Your task to perform on an android device: open app "DoorDash - Food Delivery" Image 0: 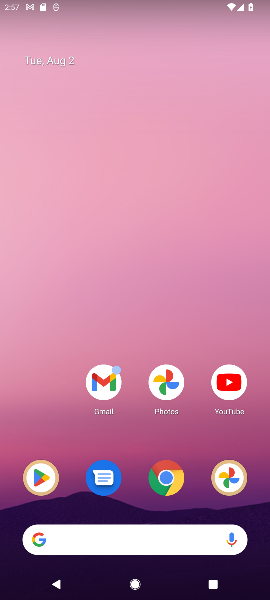
Step 0: drag from (144, 520) to (144, 65)
Your task to perform on an android device: open app "DoorDash - Food Delivery" Image 1: 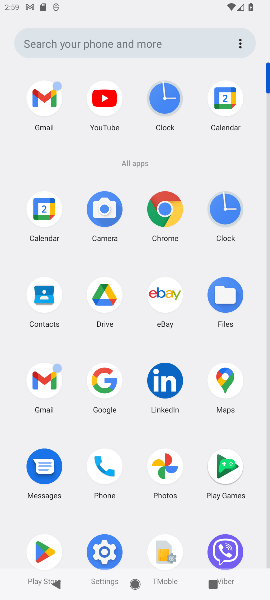
Step 1: click (36, 553)
Your task to perform on an android device: open app "DoorDash - Food Delivery" Image 2: 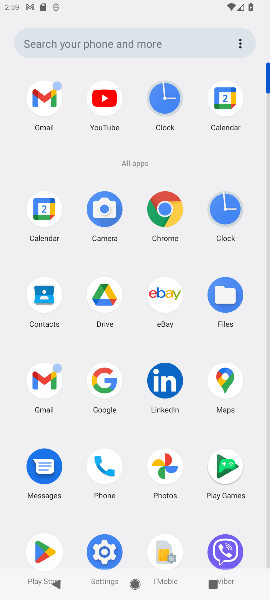
Step 2: click (38, 555)
Your task to perform on an android device: open app "DoorDash - Food Delivery" Image 3: 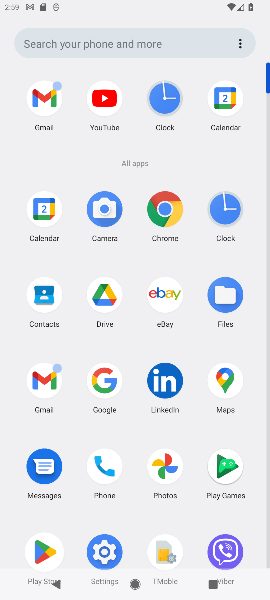
Step 3: click (38, 555)
Your task to perform on an android device: open app "DoorDash - Food Delivery" Image 4: 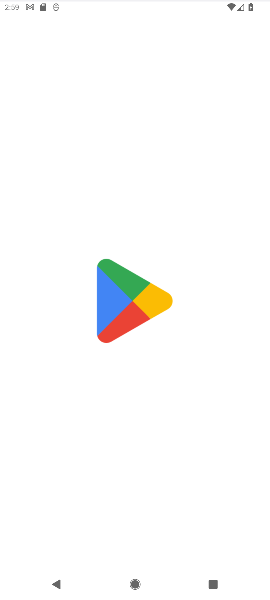
Step 4: click (40, 557)
Your task to perform on an android device: open app "DoorDash - Food Delivery" Image 5: 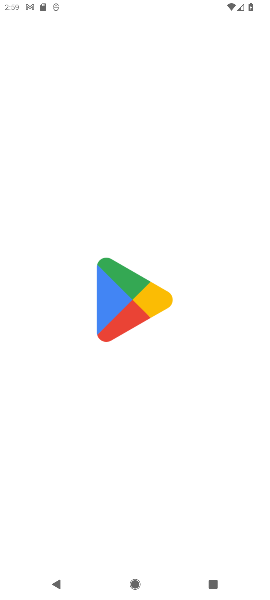
Step 5: click (40, 557)
Your task to perform on an android device: open app "DoorDash - Food Delivery" Image 6: 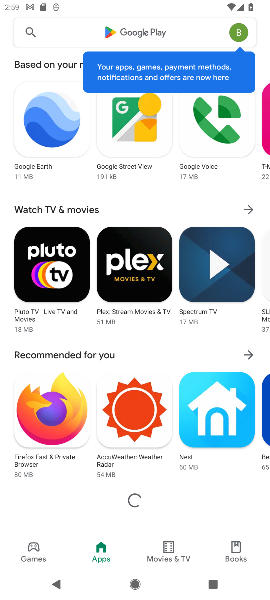
Step 6: click (63, 21)
Your task to perform on an android device: open app "DoorDash - Food Delivery" Image 7: 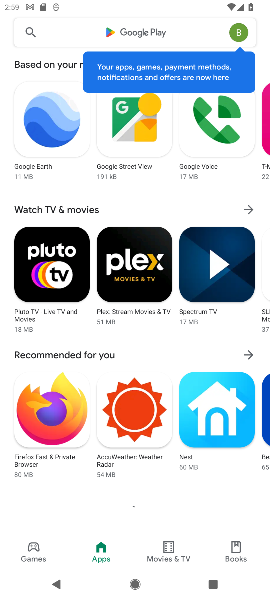
Step 7: click (78, 27)
Your task to perform on an android device: open app "DoorDash - Food Delivery" Image 8: 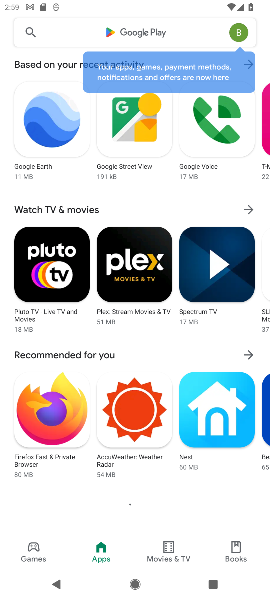
Step 8: click (85, 32)
Your task to perform on an android device: open app "DoorDash - Food Delivery" Image 9: 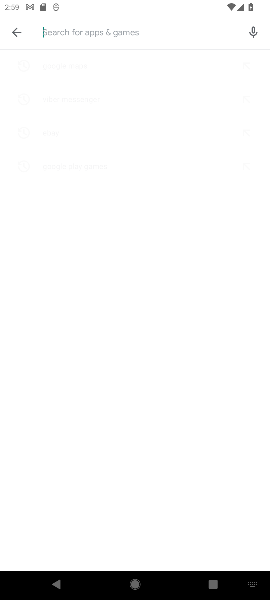
Step 9: click (86, 33)
Your task to perform on an android device: open app "DoorDash - Food Delivery" Image 10: 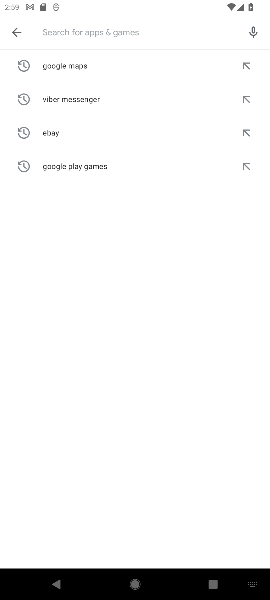
Step 10: click (86, 33)
Your task to perform on an android device: open app "DoorDash - Food Delivery" Image 11: 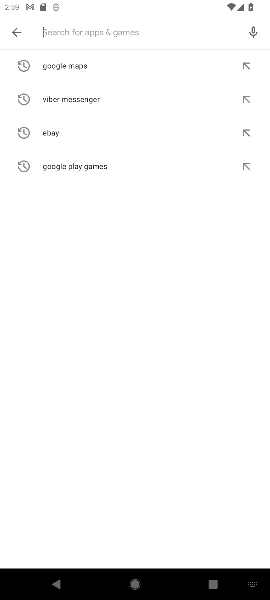
Step 11: type "doordash"
Your task to perform on an android device: open app "DoorDash - Food Delivery" Image 12: 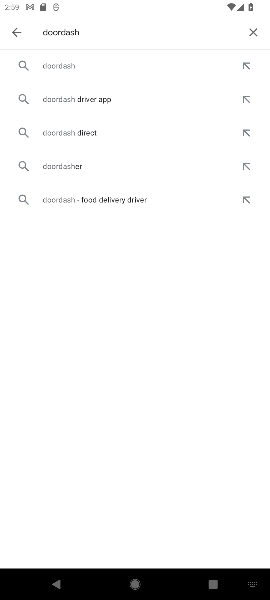
Step 12: click (67, 71)
Your task to perform on an android device: open app "DoorDash - Food Delivery" Image 13: 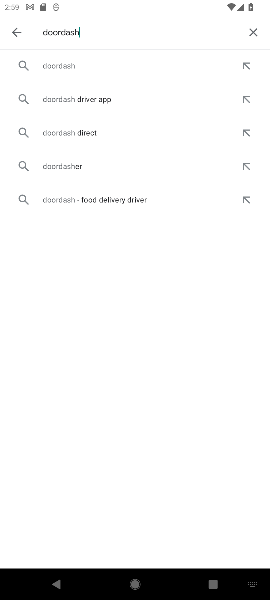
Step 13: click (67, 71)
Your task to perform on an android device: open app "DoorDash - Food Delivery" Image 14: 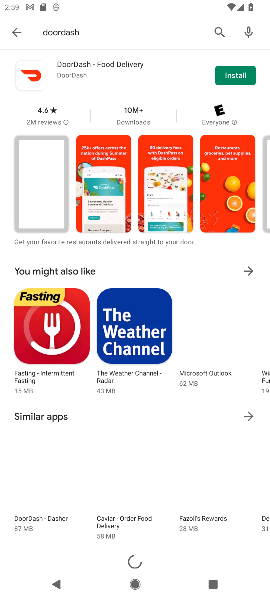
Step 14: click (67, 71)
Your task to perform on an android device: open app "DoorDash - Food Delivery" Image 15: 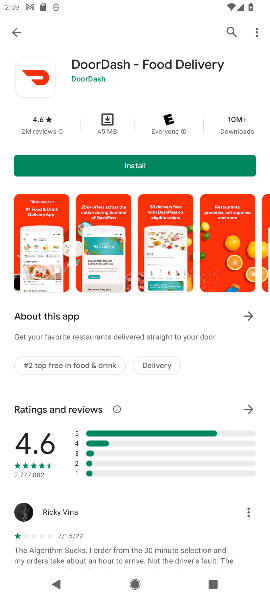
Step 15: click (136, 168)
Your task to perform on an android device: open app "DoorDash - Food Delivery" Image 16: 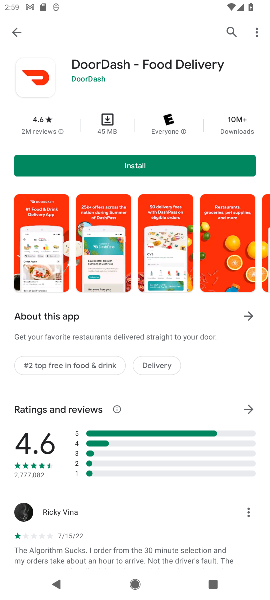
Step 16: click (137, 169)
Your task to perform on an android device: open app "DoorDash - Food Delivery" Image 17: 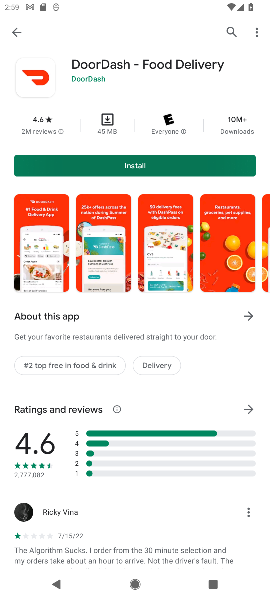
Step 17: click (137, 170)
Your task to perform on an android device: open app "DoorDash - Food Delivery" Image 18: 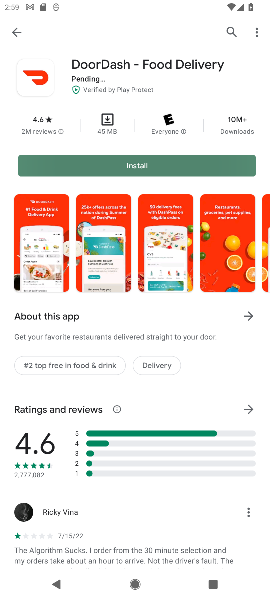
Step 18: click (138, 171)
Your task to perform on an android device: open app "DoorDash - Food Delivery" Image 19: 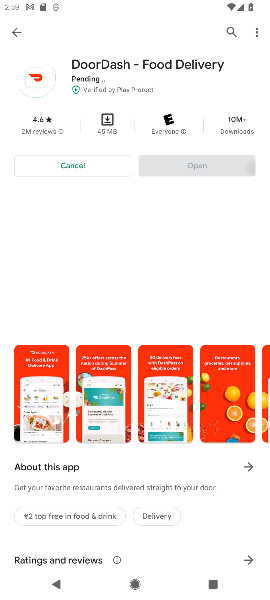
Step 19: click (138, 171)
Your task to perform on an android device: open app "DoorDash - Food Delivery" Image 20: 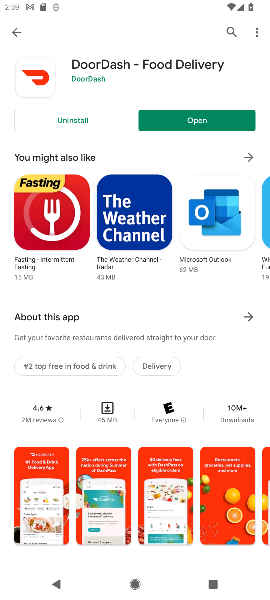
Step 20: click (196, 119)
Your task to perform on an android device: open app "DoorDash - Food Delivery" Image 21: 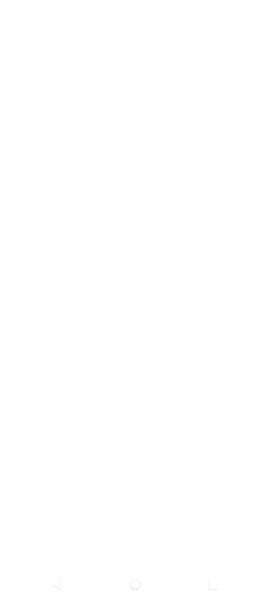
Step 21: task complete